Your task to perform on an android device: Open eBay Image 0: 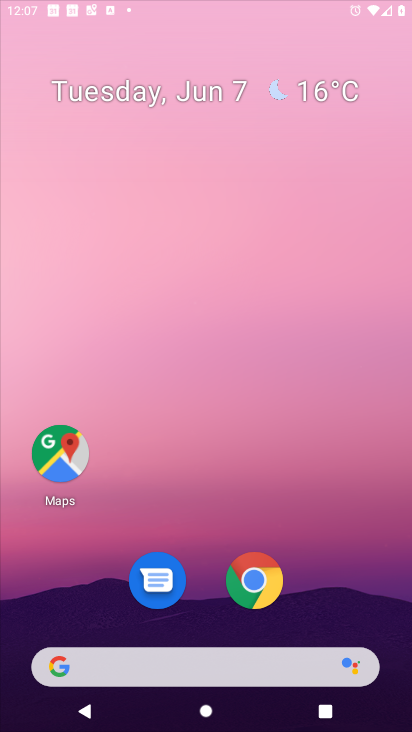
Step 0: click (362, 77)
Your task to perform on an android device: Open eBay Image 1: 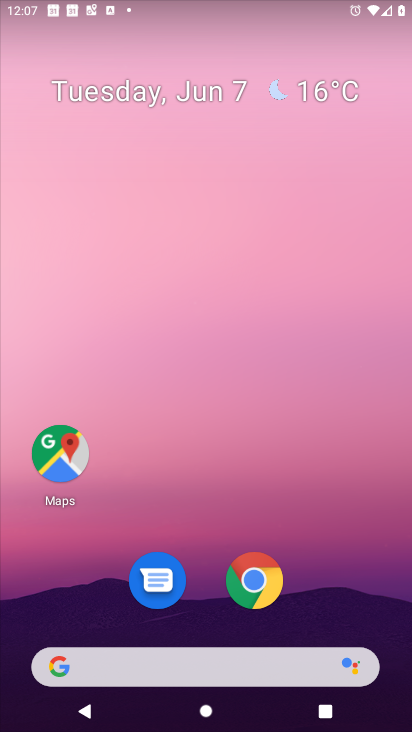
Step 1: press home button
Your task to perform on an android device: Open eBay Image 2: 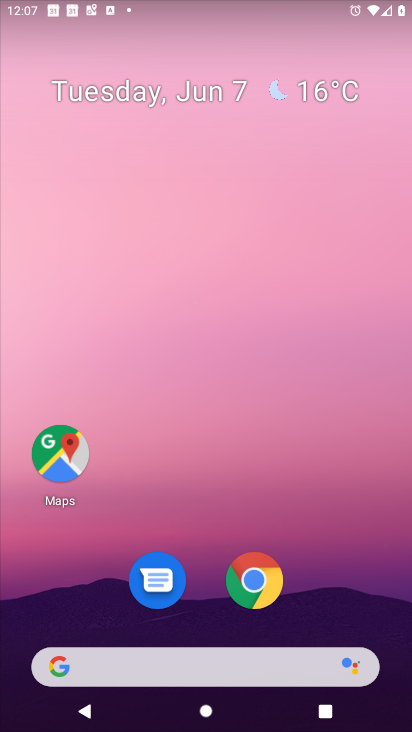
Step 2: drag from (307, 579) to (376, 0)
Your task to perform on an android device: Open eBay Image 3: 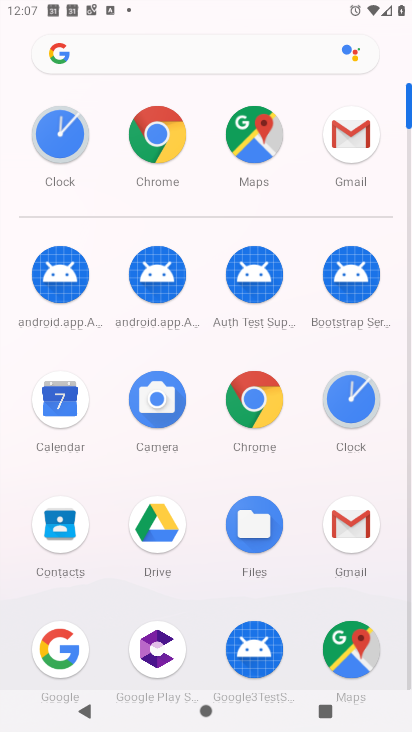
Step 3: click (169, 146)
Your task to perform on an android device: Open eBay Image 4: 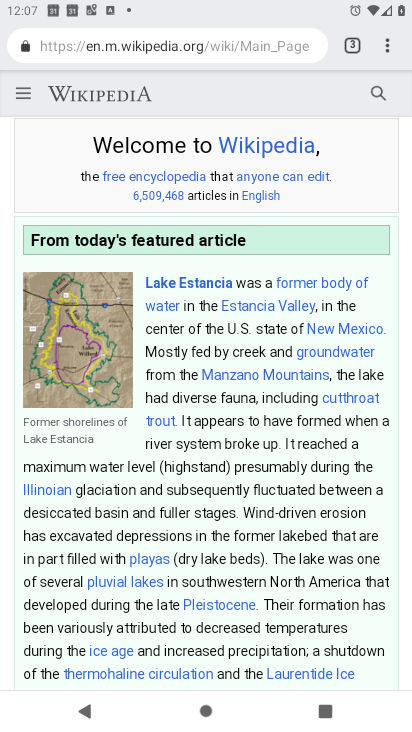
Step 4: click (120, 60)
Your task to perform on an android device: Open eBay Image 5: 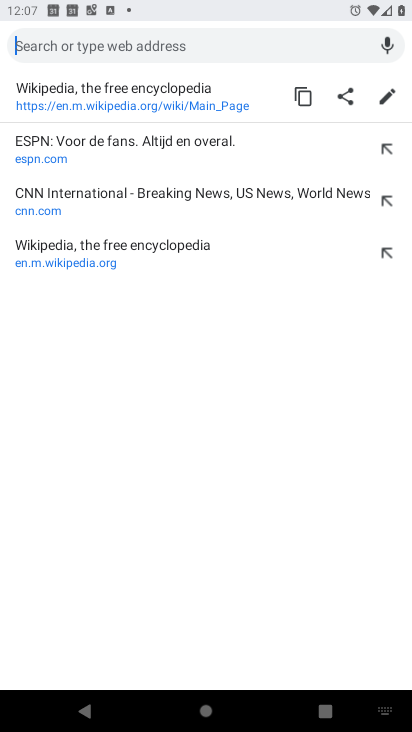
Step 5: type "ebay"
Your task to perform on an android device: Open eBay Image 6: 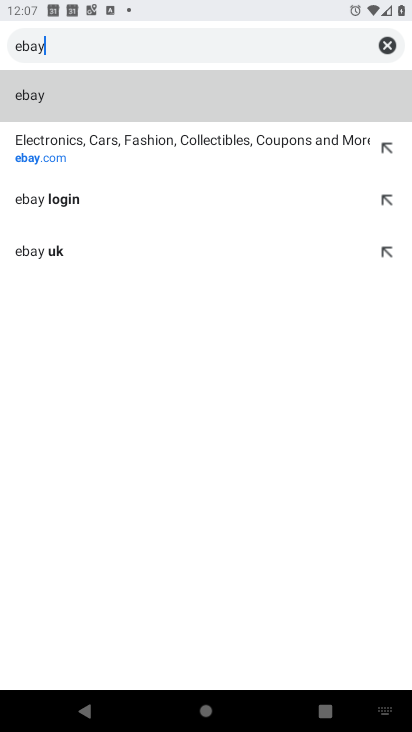
Step 6: click (74, 163)
Your task to perform on an android device: Open eBay Image 7: 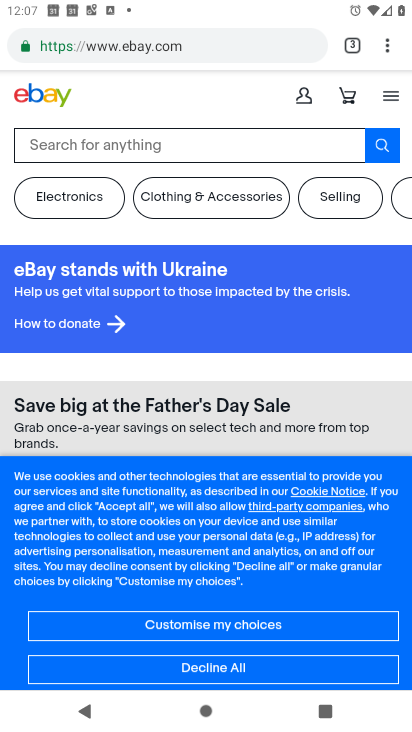
Step 7: task complete